Your task to perform on an android device: show emergency info Image 0: 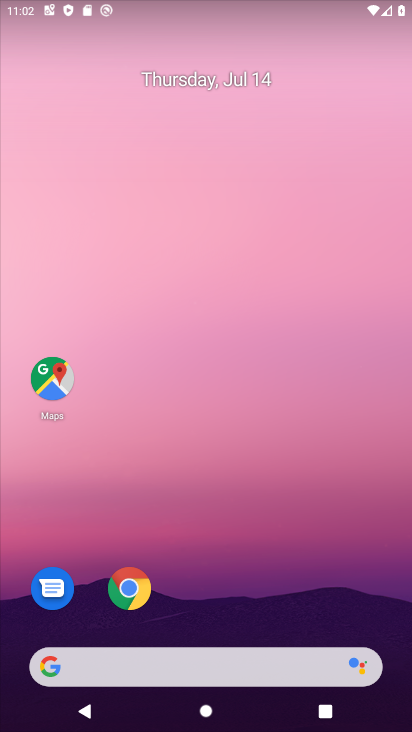
Step 0: drag from (393, 657) to (289, 107)
Your task to perform on an android device: show emergency info Image 1: 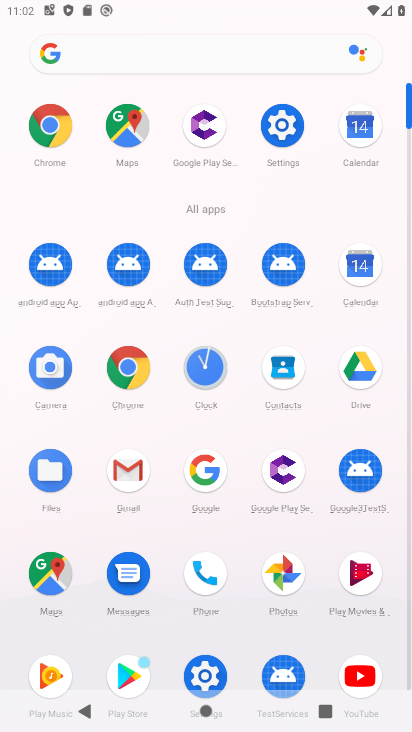
Step 1: click (407, 601)
Your task to perform on an android device: show emergency info Image 2: 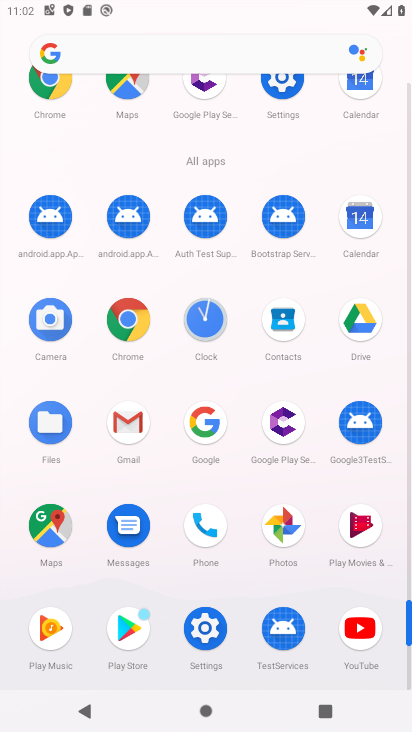
Step 2: click (204, 631)
Your task to perform on an android device: show emergency info Image 3: 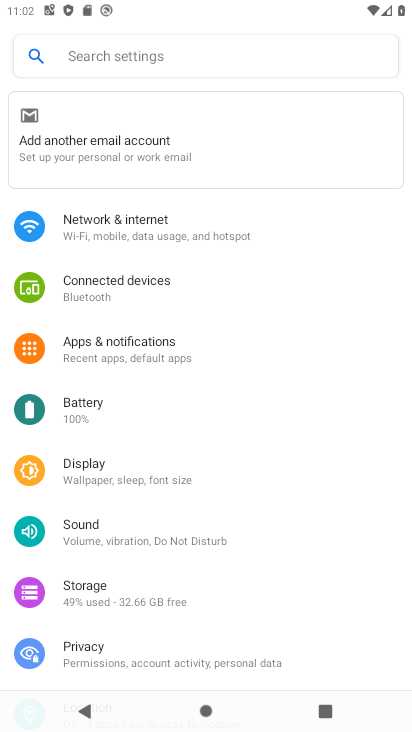
Step 3: drag from (355, 661) to (272, 209)
Your task to perform on an android device: show emergency info Image 4: 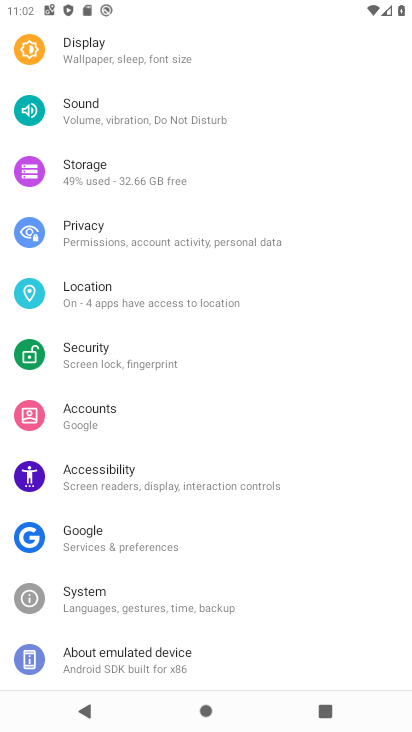
Step 4: click (99, 660)
Your task to perform on an android device: show emergency info Image 5: 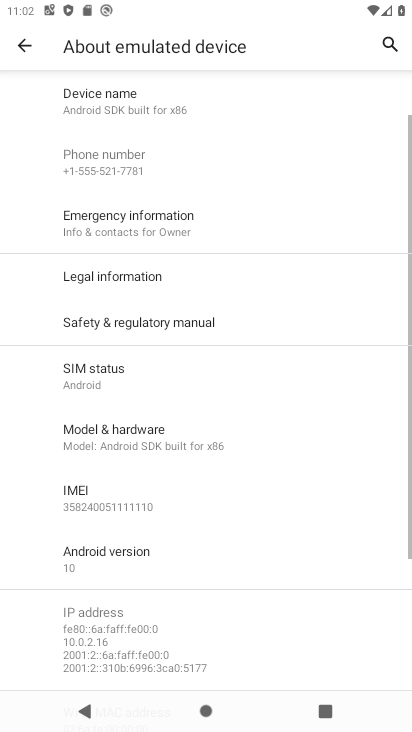
Step 5: click (114, 212)
Your task to perform on an android device: show emergency info Image 6: 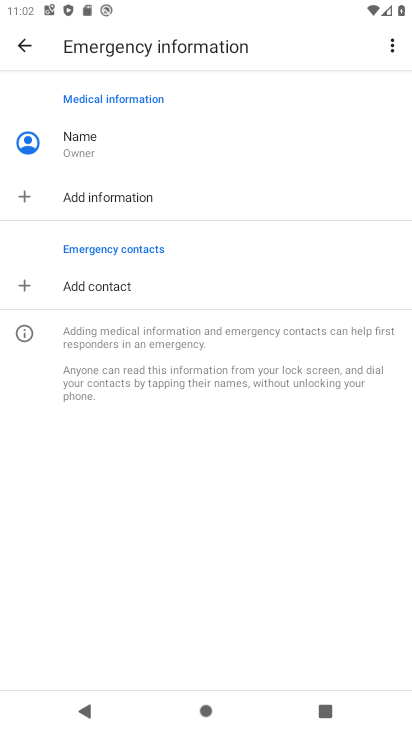
Step 6: task complete